Your task to perform on an android device: change notification settings in the gmail app Image 0: 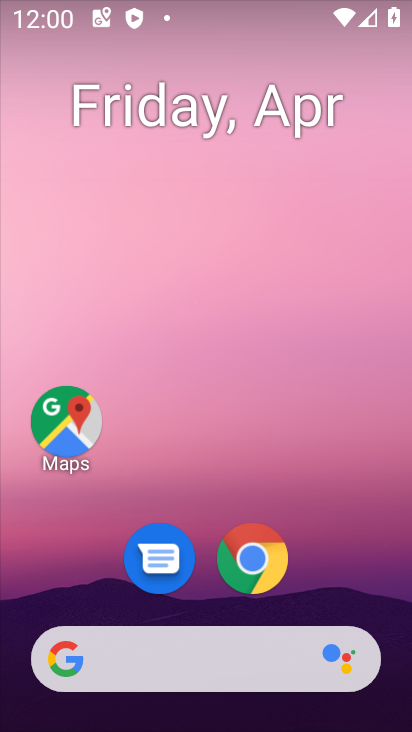
Step 0: drag from (360, 606) to (251, 78)
Your task to perform on an android device: change notification settings in the gmail app Image 1: 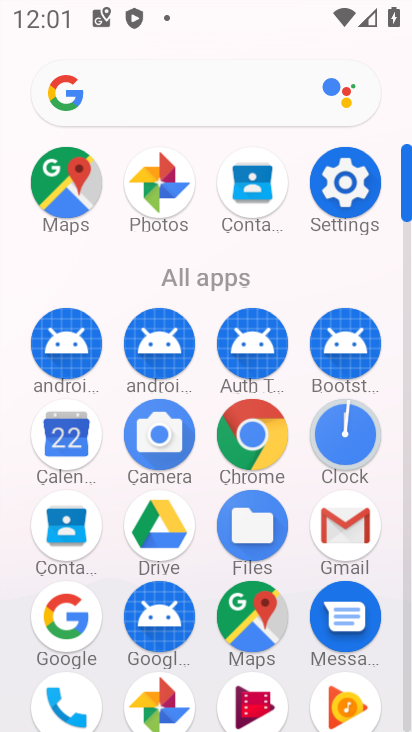
Step 1: click (347, 536)
Your task to perform on an android device: change notification settings in the gmail app Image 2: 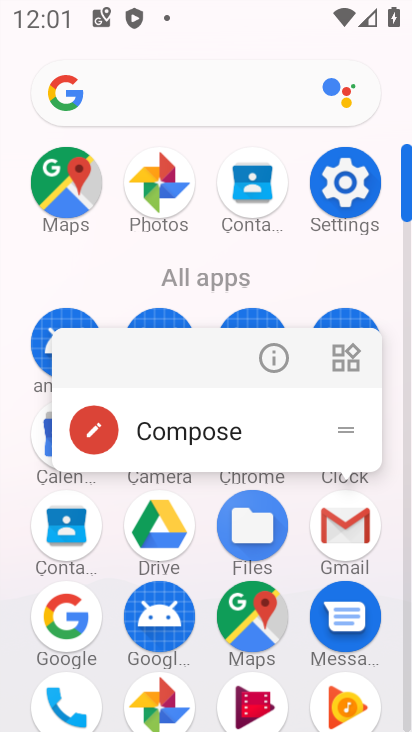
Step 2: click (347, 536)
Your task to perform on an android device: change notification settings in the gmail app Image 3: 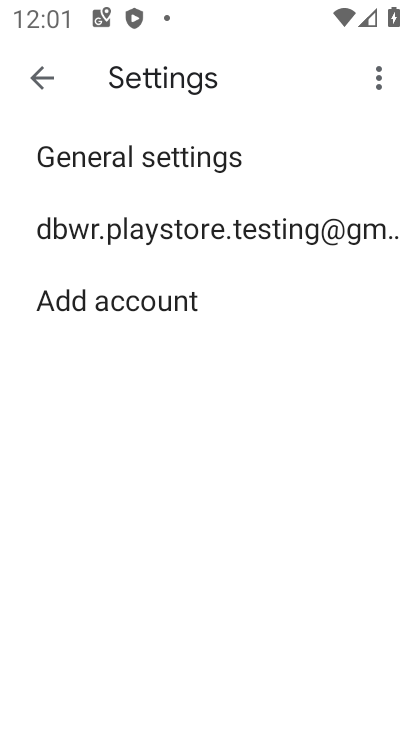
Step 3: click (236, 248)
Your task to perform on an android device: change notification settings in the gmail app Image 4: 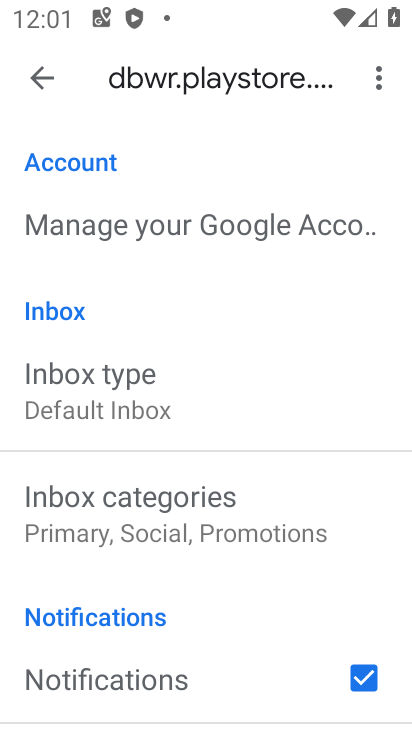
Step 4: drag from (199, 617) to (240, 289)
Your task to perform on an android device: change notification settings in the gmail app Image 5: 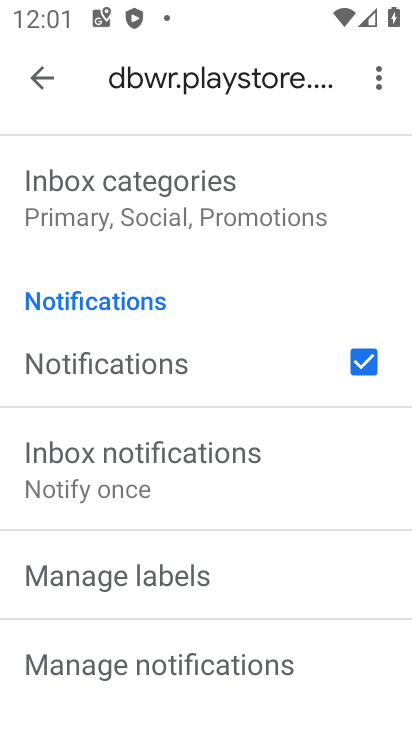
Step 5: click (235, 353)
Your task to perform on an android device: change notification settings in the gmail app Image 6: 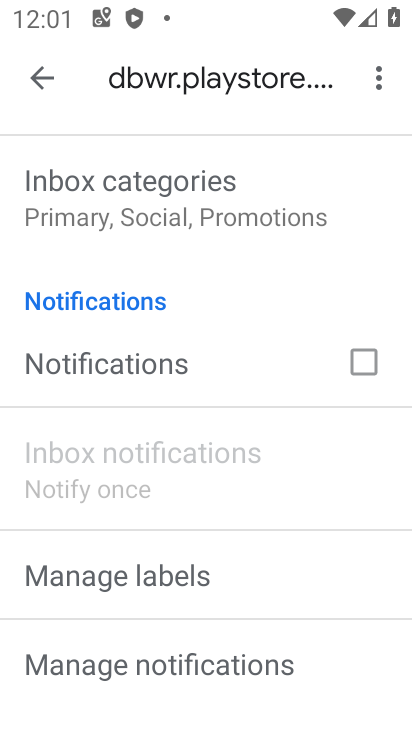
Step 6: task complete